Your task to perform on an android device: Open calendar and show me the third week of next month Image 0: 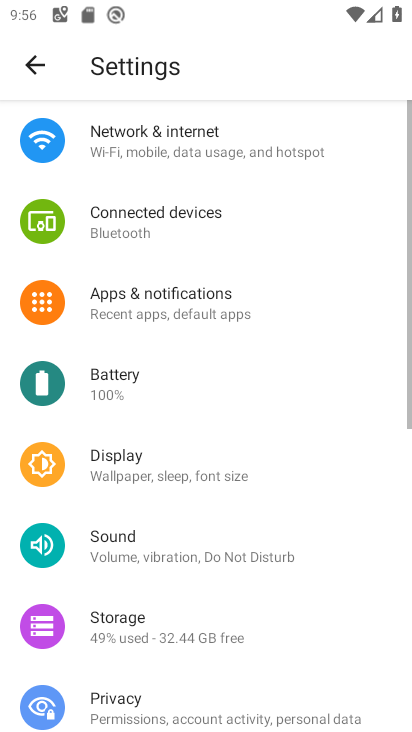
Step 0: press home button
Your task to perform on an android device: Open calendar and show me the third week of next month Image 1: 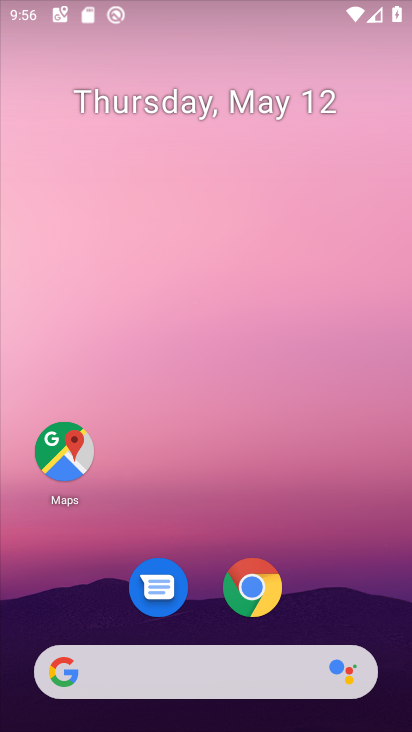
Step 1: drag from (393, 654) to (352, 43)
Your task to perform on an android device: Open calendar and show me the third week of next month Image 2: 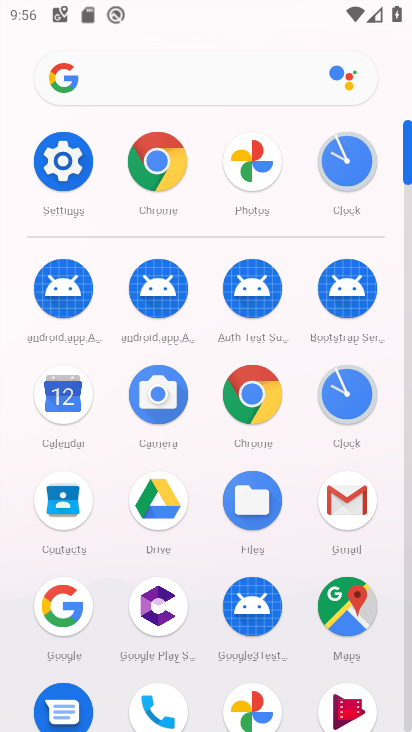
Step 2: click (73, 410)
Your task to perform on an android device: Open calendar and show me the third week of next month Image 3: 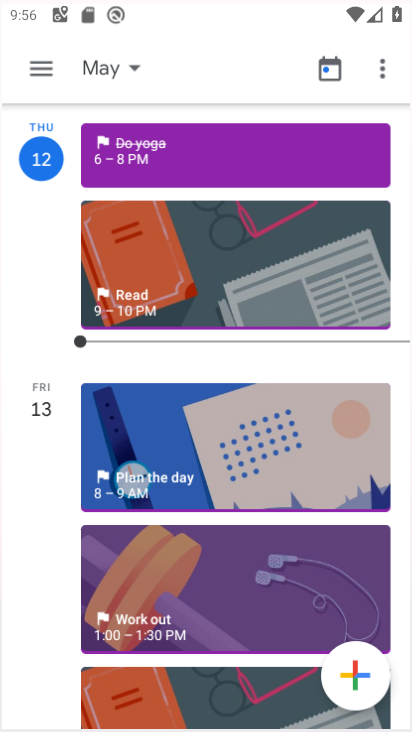
Step 3: click (58, 415)
Your task to perform on an android device: Open calendar and show me the third week of next month Image 4: 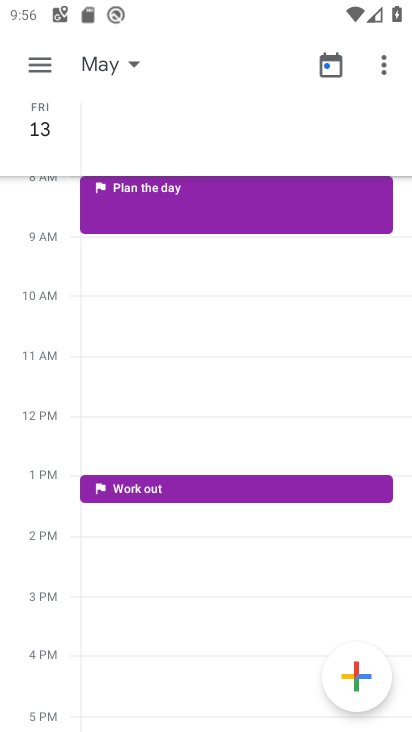
Step 4: click (109, 69)
Your task to perform on an android device: Open calendar and show me the third week of next month Image 5: 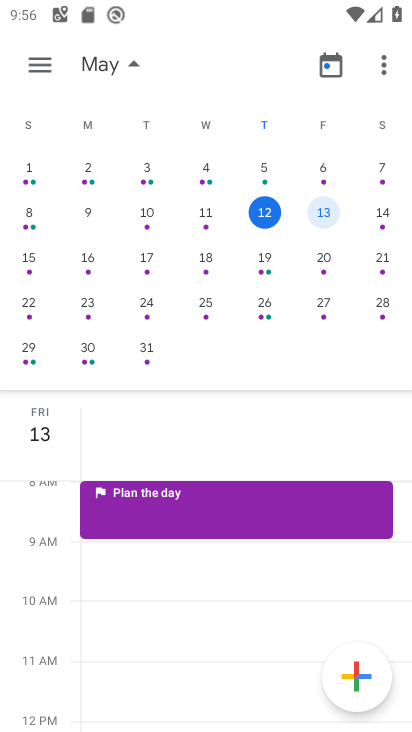
Step 5: drag from (358, 264) to (0, 268)
Your task to perform on an android device: Open calendar and show me the third week of next month Image 6: 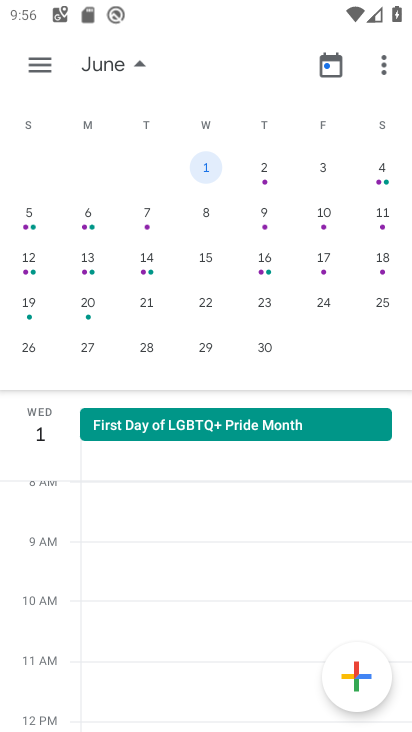
Step 6: click (34, 307)
Your task to perform on an android device: Open calendar and show me the third week of next month Image 7: 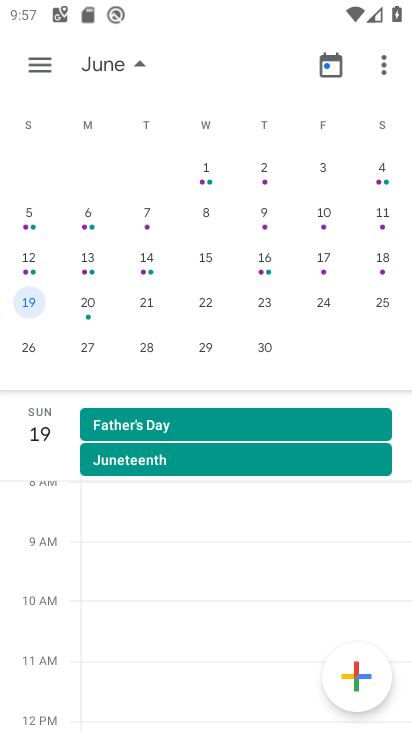
Step 7: task complete